Your task to perform on an android device: What's the weather? Image 0: 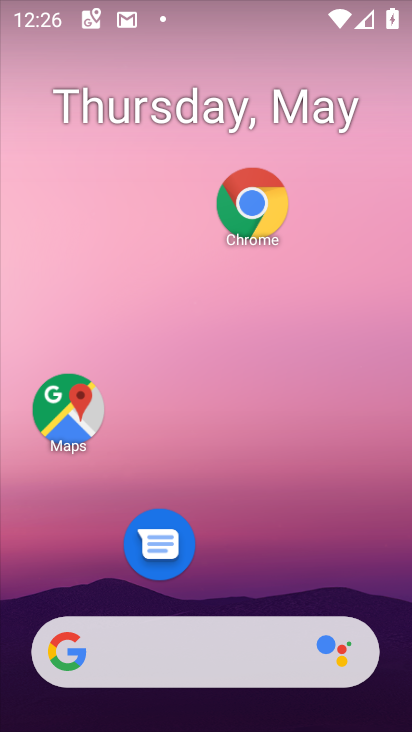
Step 0: click (251, 649)
Your task to perform on an android device: What's the weather? Image 1: 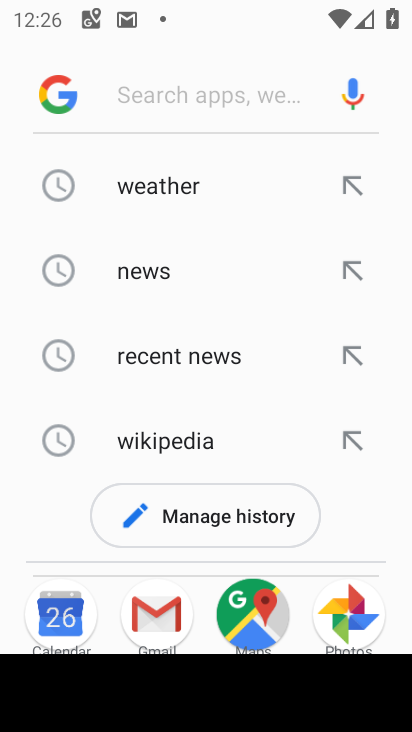
Step 1: click (293, 193)
Your task to perform on an android device: What's the weather? Image 2: 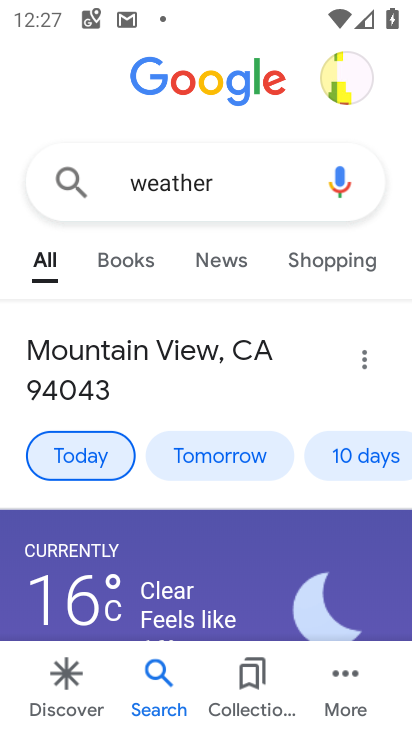
Step 2: task complete